Your task to perform on an android device: find photos in the google photos app Image 0: 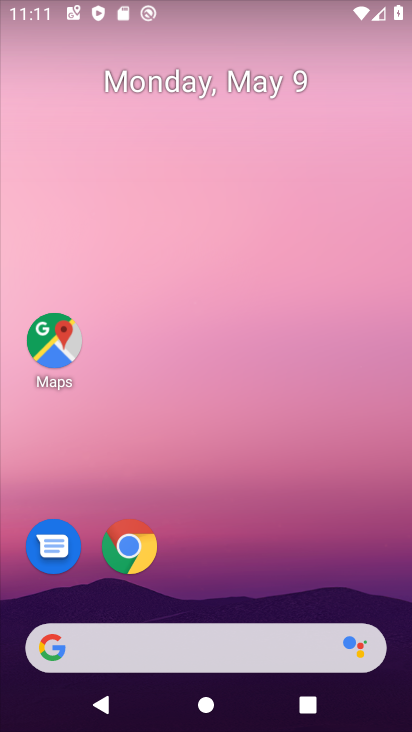
Step 0: drag from (378, 590) to (386, 15)
Your task to perform on an android device: find photos in the google photos app Image 1: 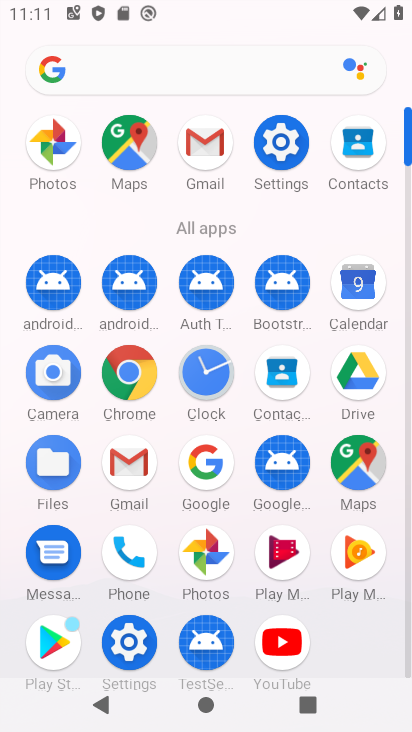
Step 1: click (219, 566)
Your task to perform on an android device: find photos in the google photos app Image 2: 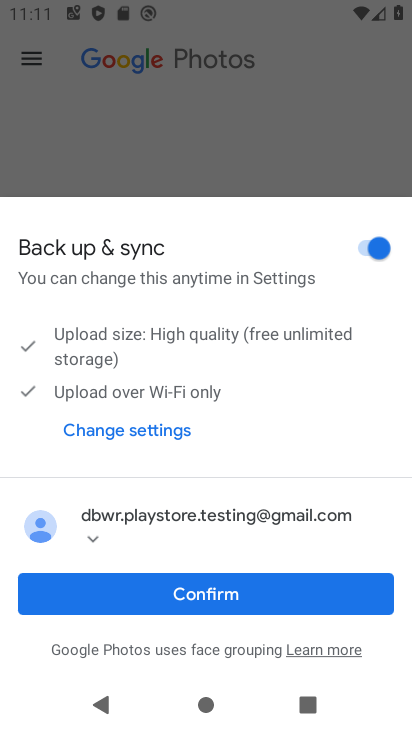
Step 2: click (186, 589)
Your task to perform on an android device: find photos in the google photos app Image 3: 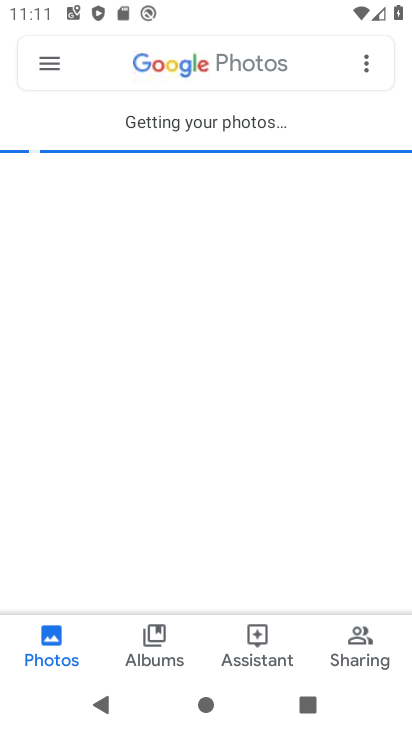
Step 3: click (34, 62)
Your task to perform on an android device: find photos in the google photos app Image 4: 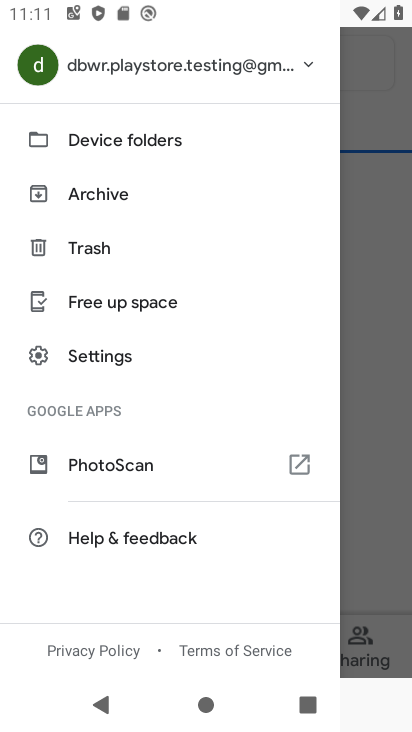
Step 4: click (372, 596)
Your task to perform on an android device: find photos in the google photos app Image 5: 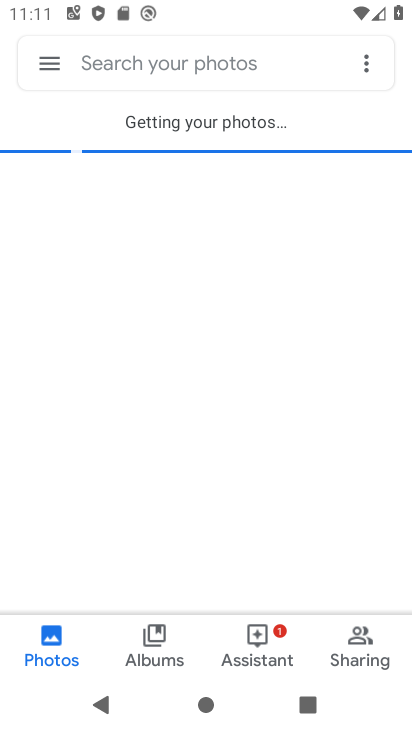
Step 5: click (54, 650)
Your task to perform on an android device: find photos in the google photos app Image 6: 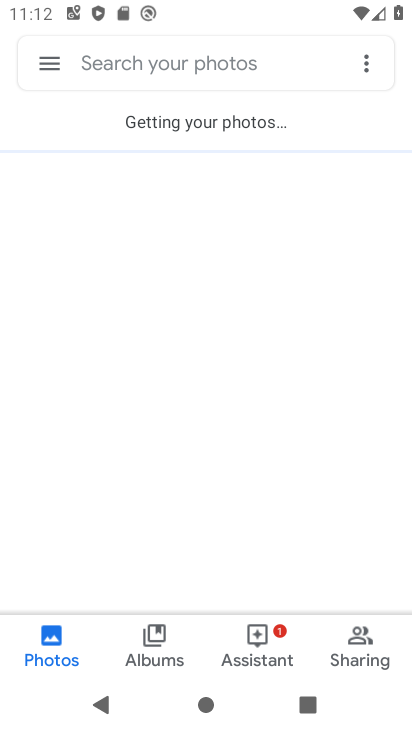
Step 6: drag from (240, 332) to (255, 420)
Your task to perform on an android device: find photos in the google photos app Image 7: 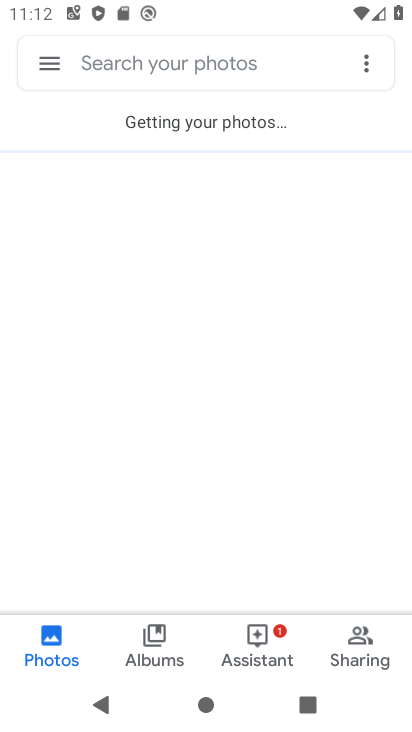
Step 7: drag from (218, 197) to (194, 412)
Your task to perform on an android device: find photos in the google photos app Image 8: 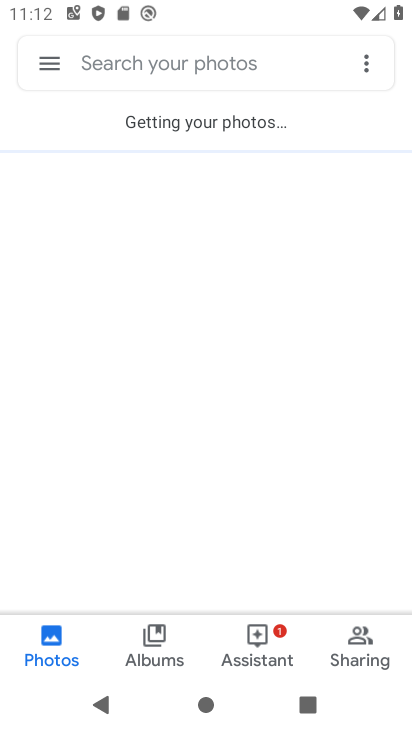
Step 8: drag from (204, 171) to (184, 398)
Your task to perform on an android device: find photos in the google photos app Image 9: 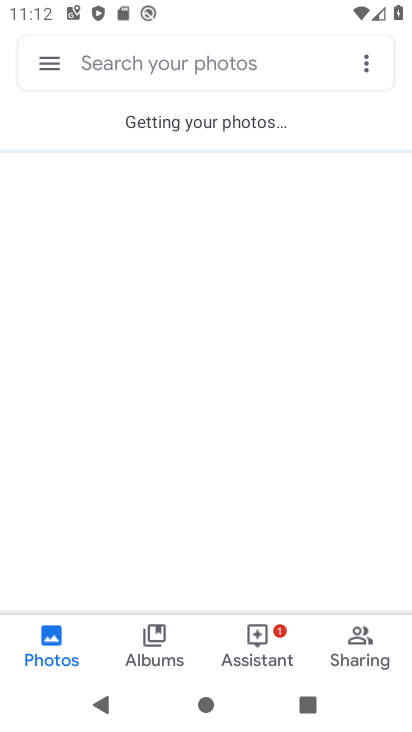
Step 9: drag from (188, 159) to (217, 451)
Your task to perform on an android device: find photos in the google photos app Image 10: 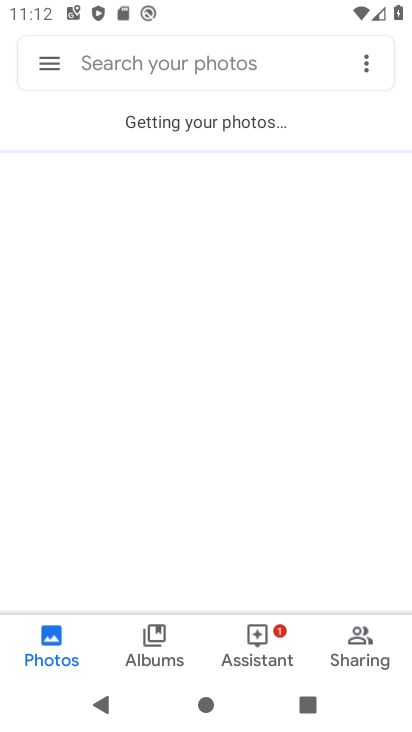
Step 10: click (163, 128)
Your task to perform on an android device: find photos in the google photos app Image 11: 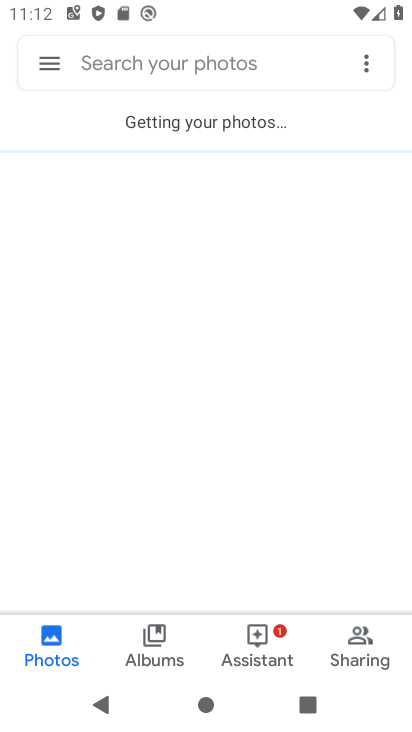
Step 11: task complete